Your task to perform on an android device: Open the map Image 0: 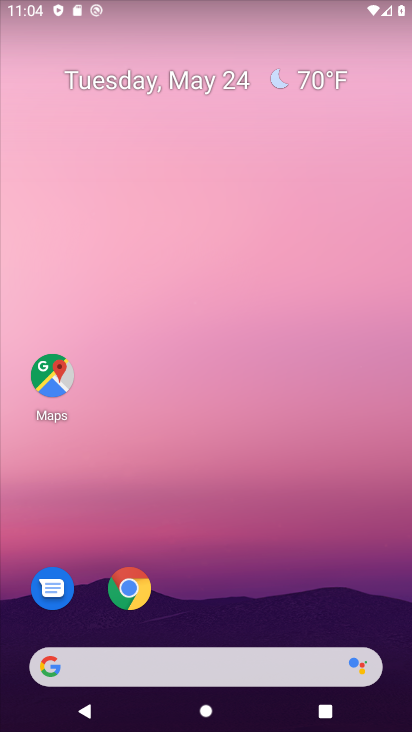
Step 0: press home button
Your task to perform on an android device: Open the map Image 1: 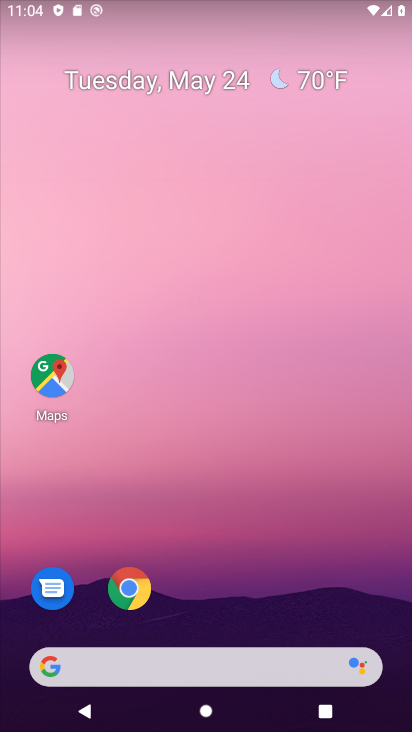
Step 1: click (53, 369)
Your task to perform on an android device: Open the map Image 2: 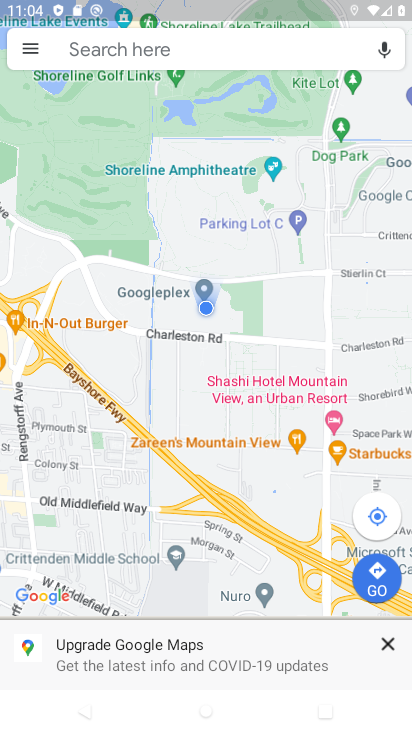
Step 2: task complete